Your task to perform on an android device: turn on bluetooth scan Image 0: 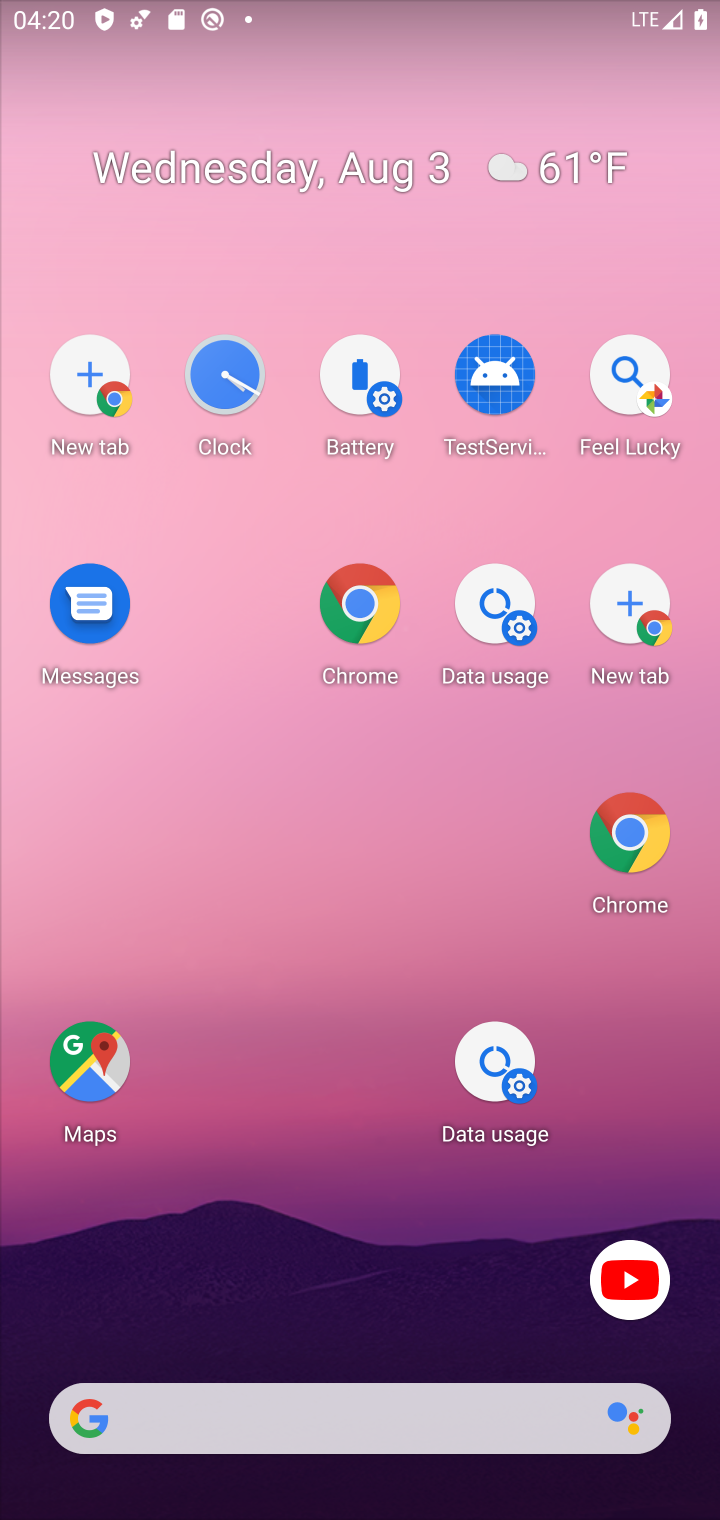
Step 0: drag from (399, 1361) to (299, 210)
Your task to perform on an android device: turn on bluetooth scan Image 1: 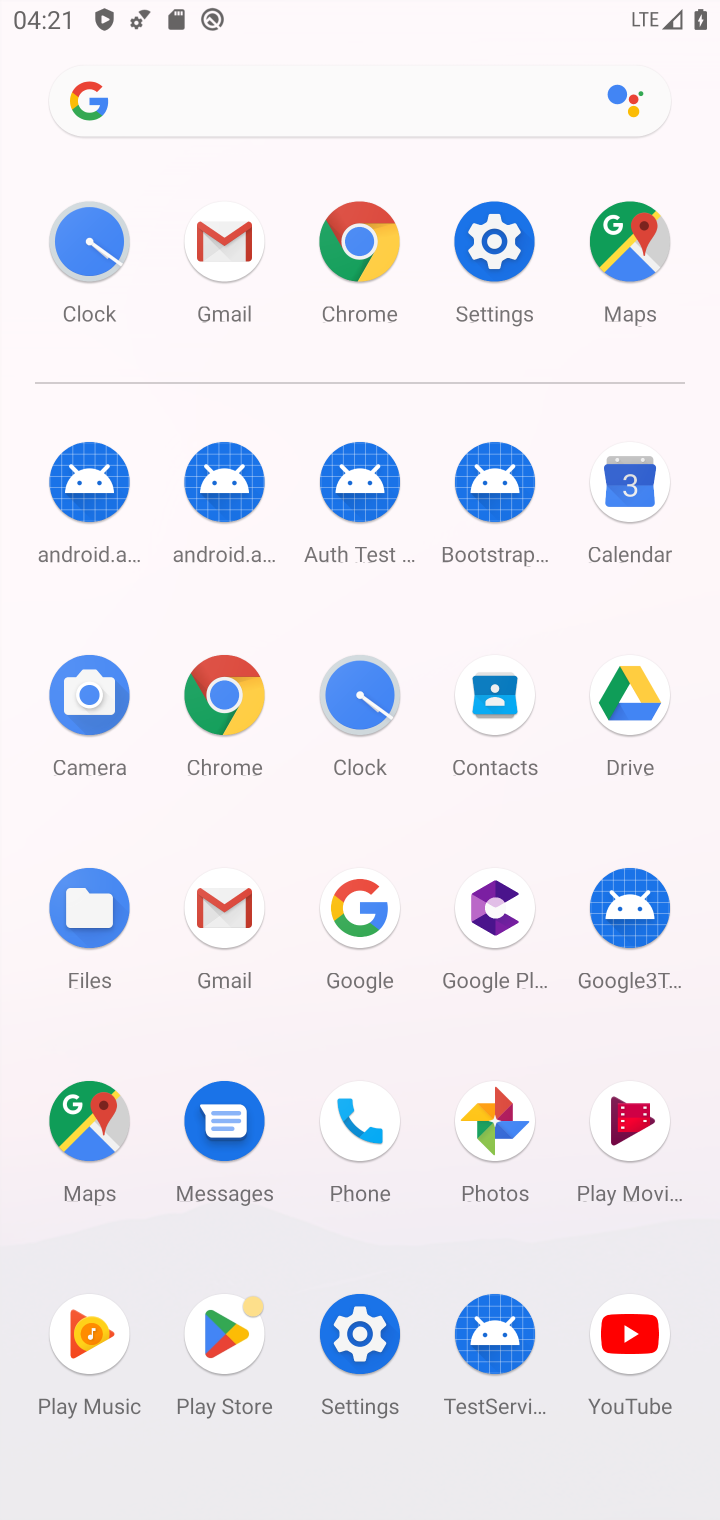
Step 1: click (490, 254)
Your task to perform on an android device: turn on bluetooth scan Image 2: 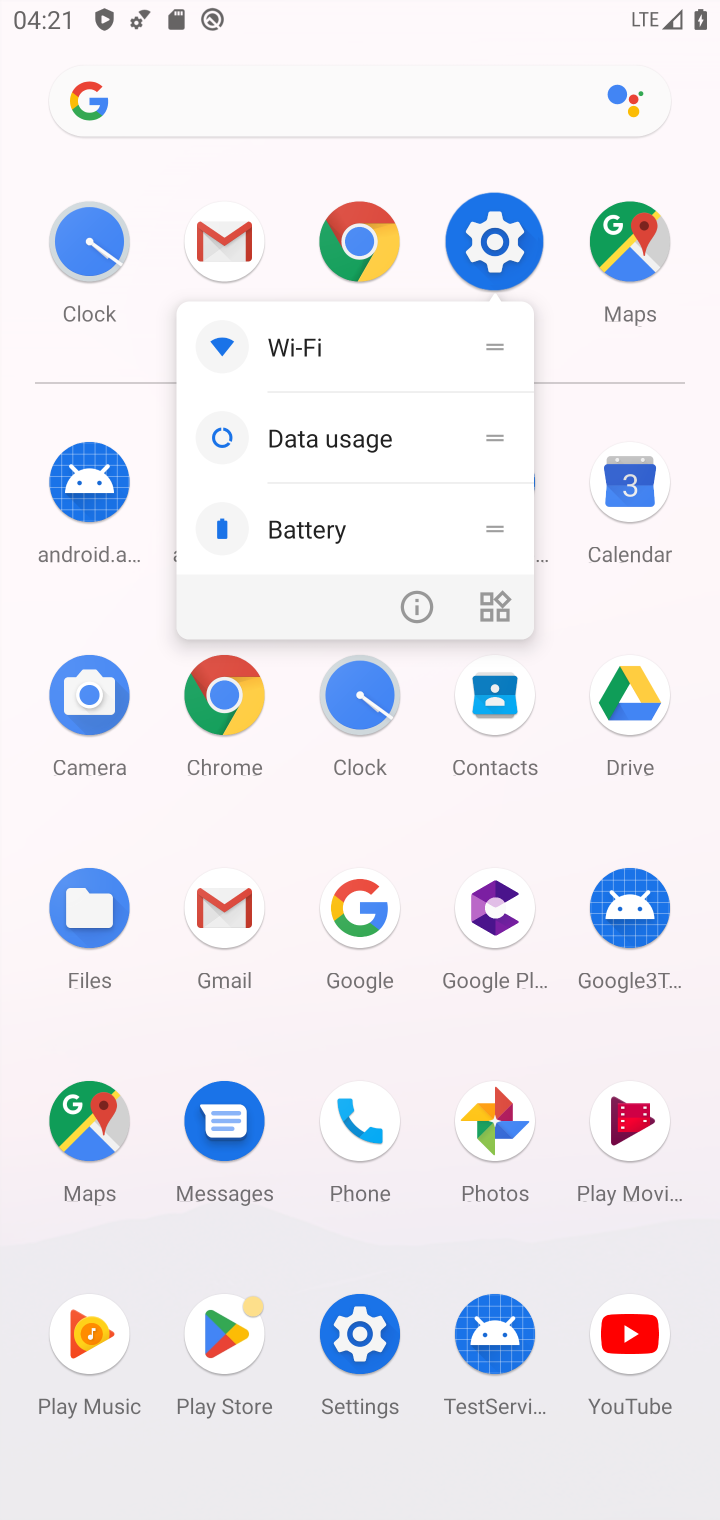
Step 2: click (523, 245)
Your task to perform on an android device: turn on bluetooth scan Image 3: 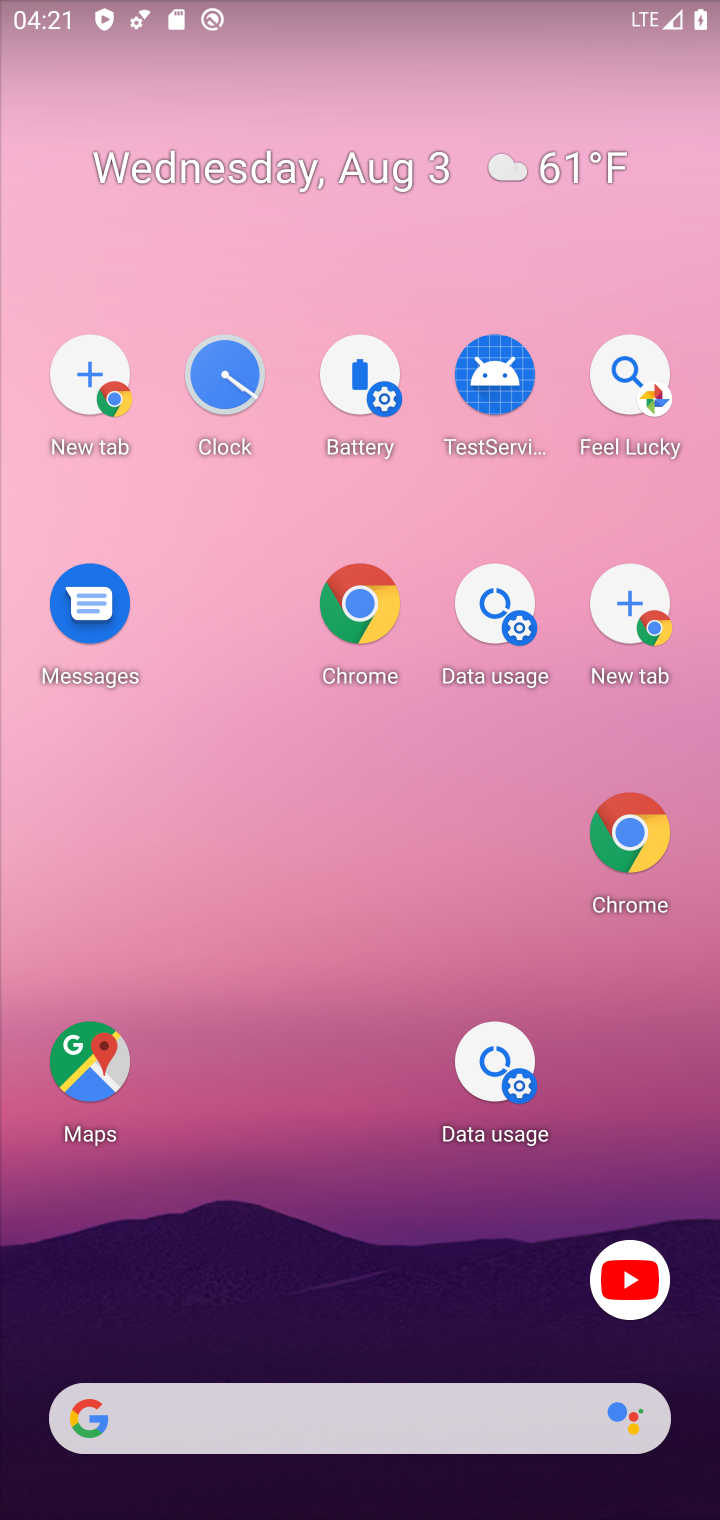
Step 3: click (244, 209)
Your task to perform on an android device: turn on bluetooth scan Image 4: 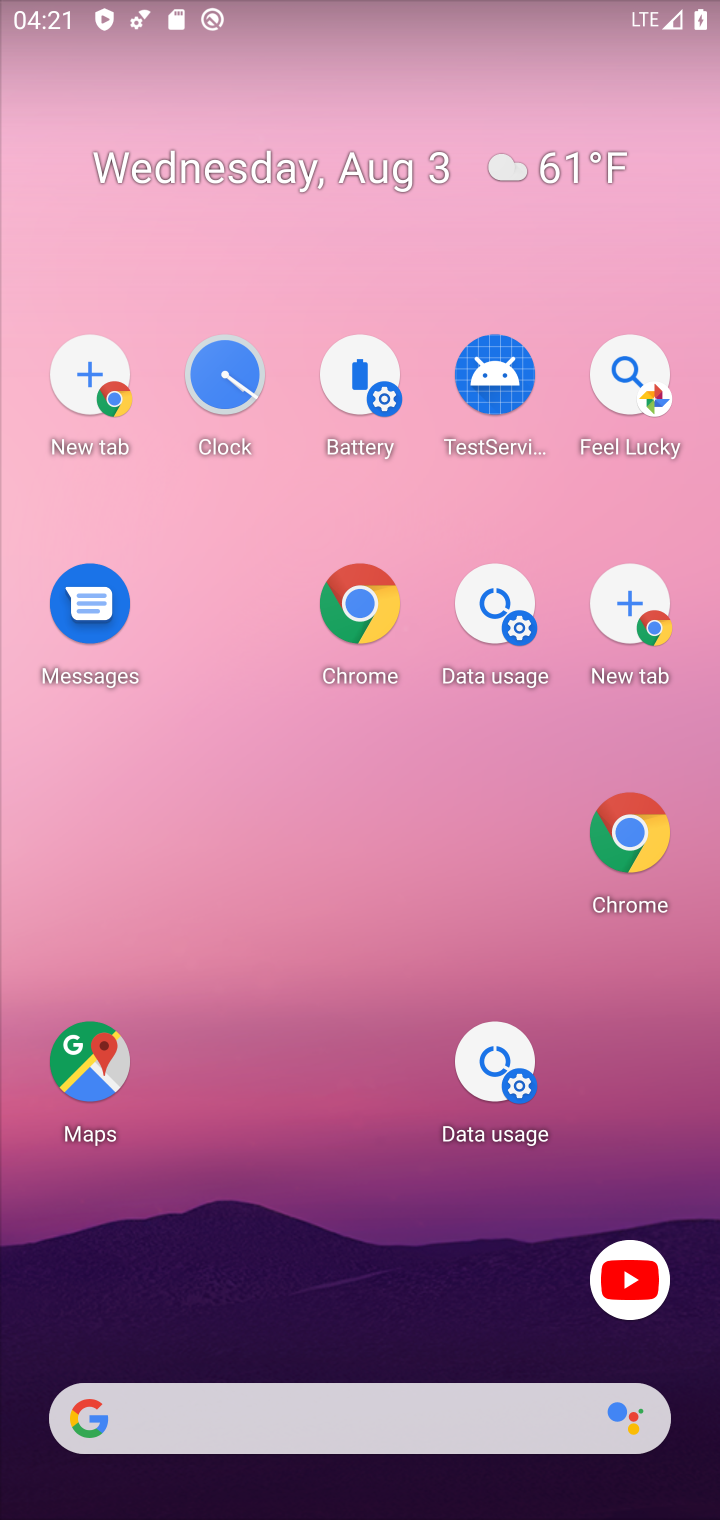
Step 4: drag from (346, 1253) to (462, 37)
Your task to perform on an android device: turn on bluetooth scan Image 5: 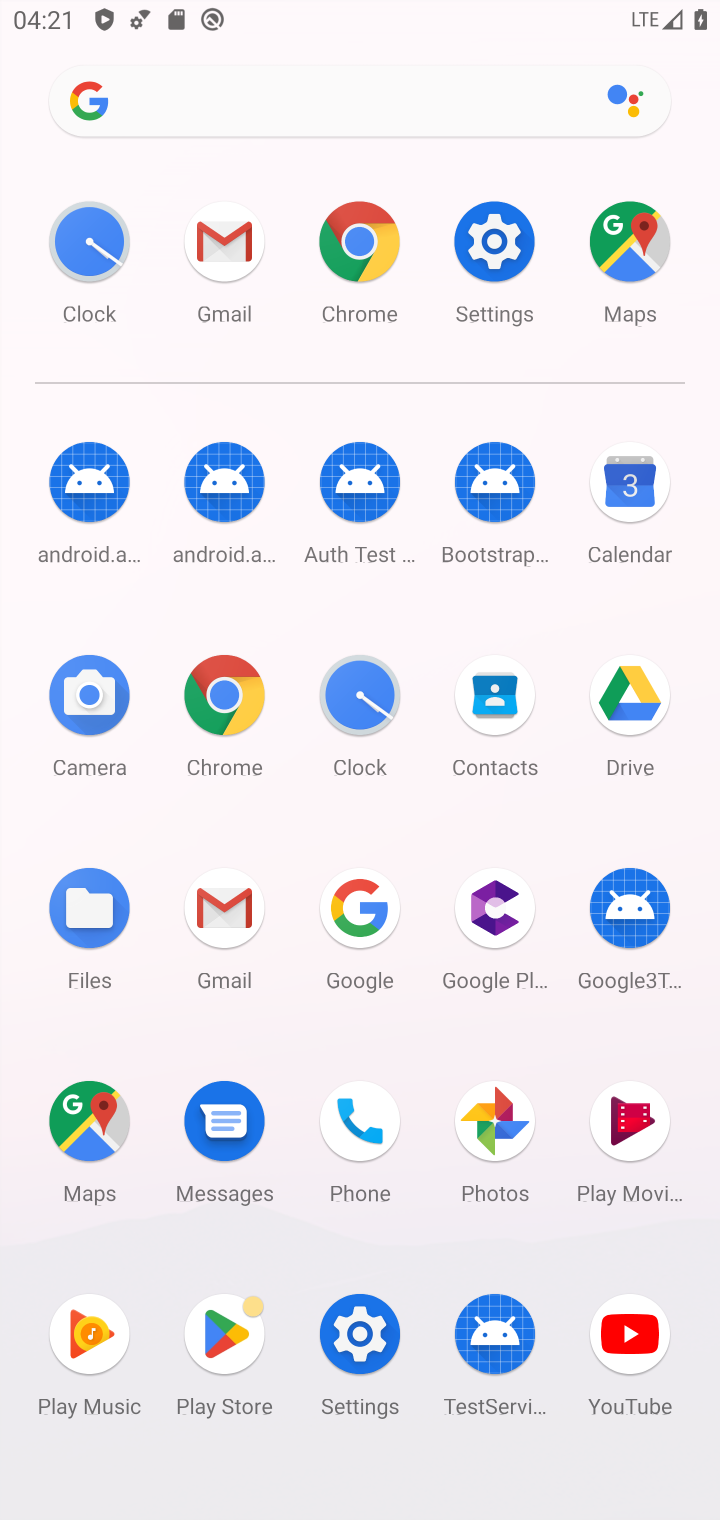
Step 5: click (336, 1330)
Your task to perform on an android device: turn on bluetooth scan Image 6: 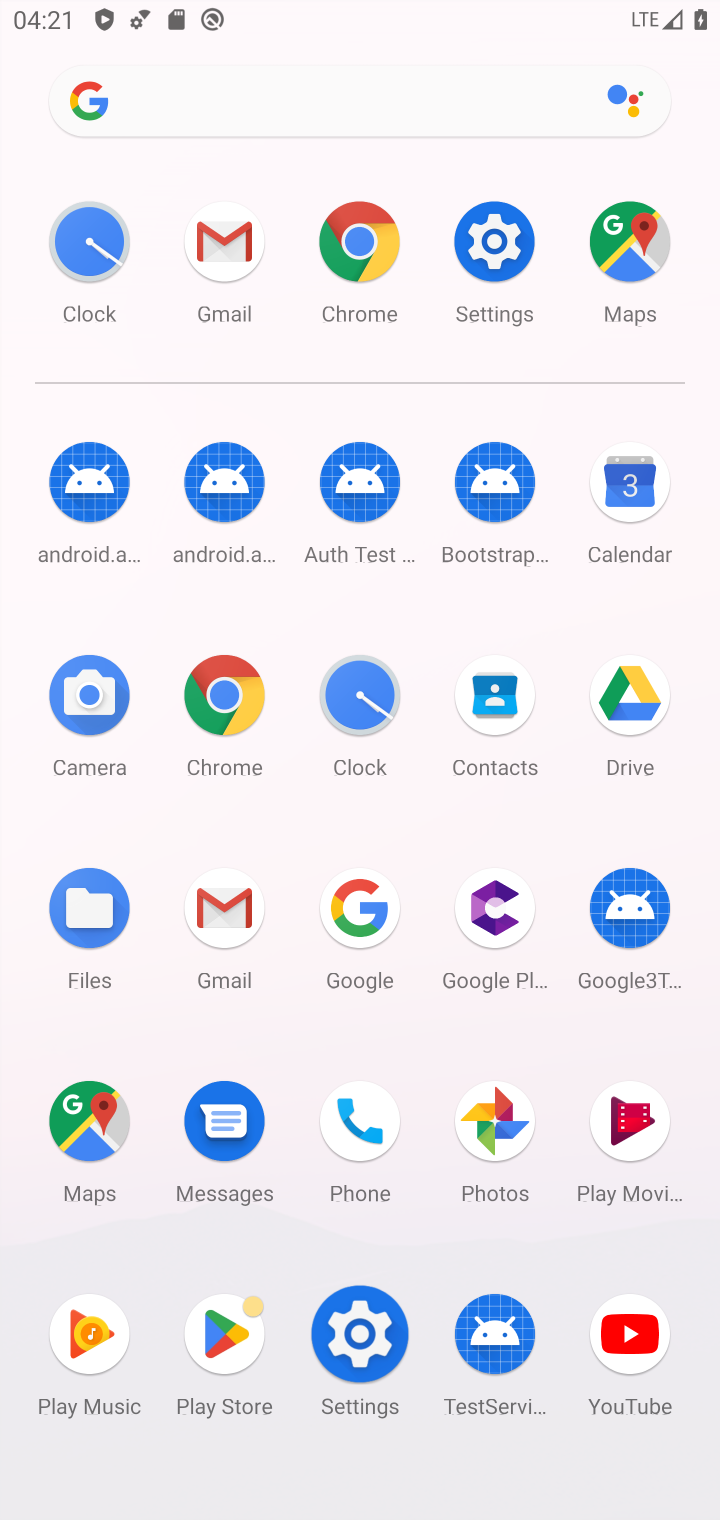
Step 6: click (364, 1320)
Your task to perform on an android device: turn on bluetooth scan Image 7: 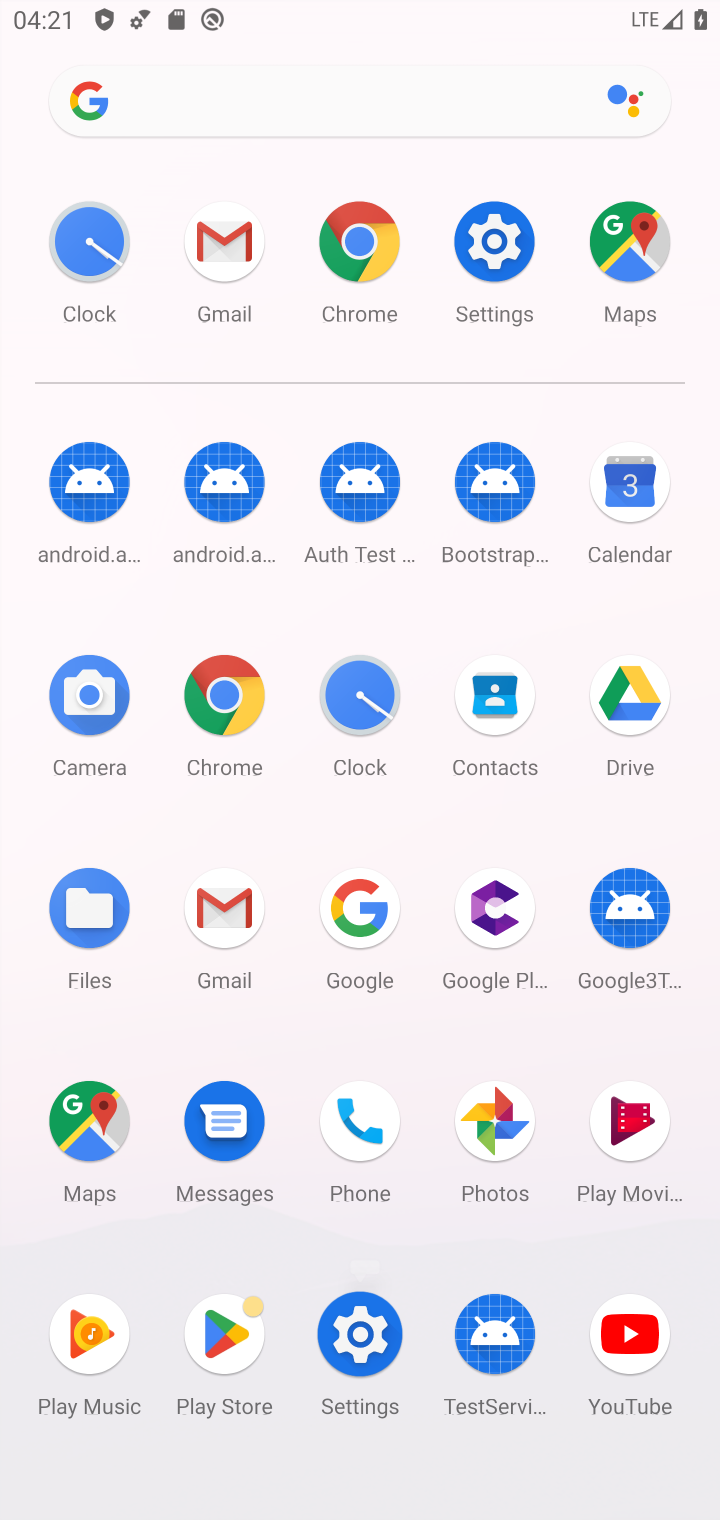
Step 7: click (373, 1319)
Your task to perform on an android device: turn on bluetooth scan Image 8: 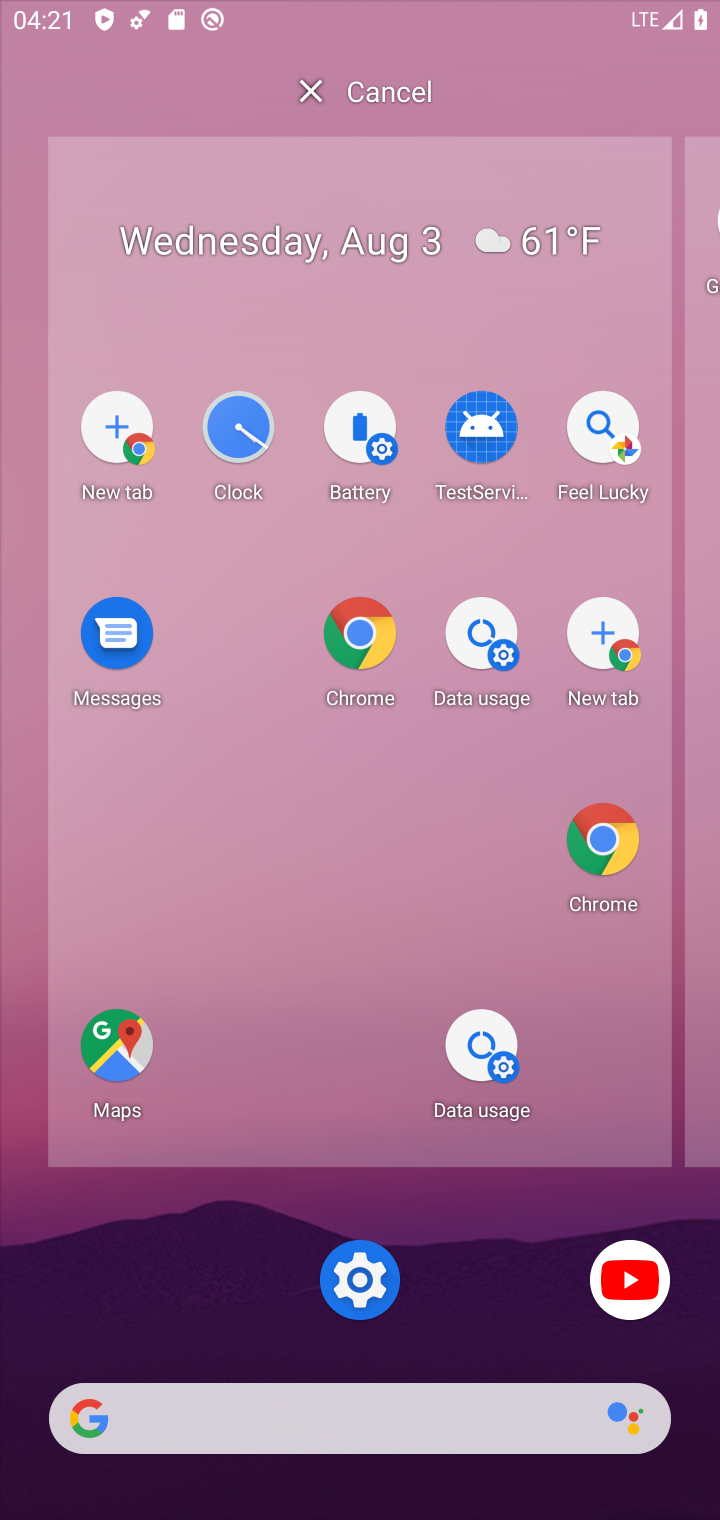
Step 8: click (306, 1369)
Your task to perform on an android device: turn on bluetooth scan Image 9: 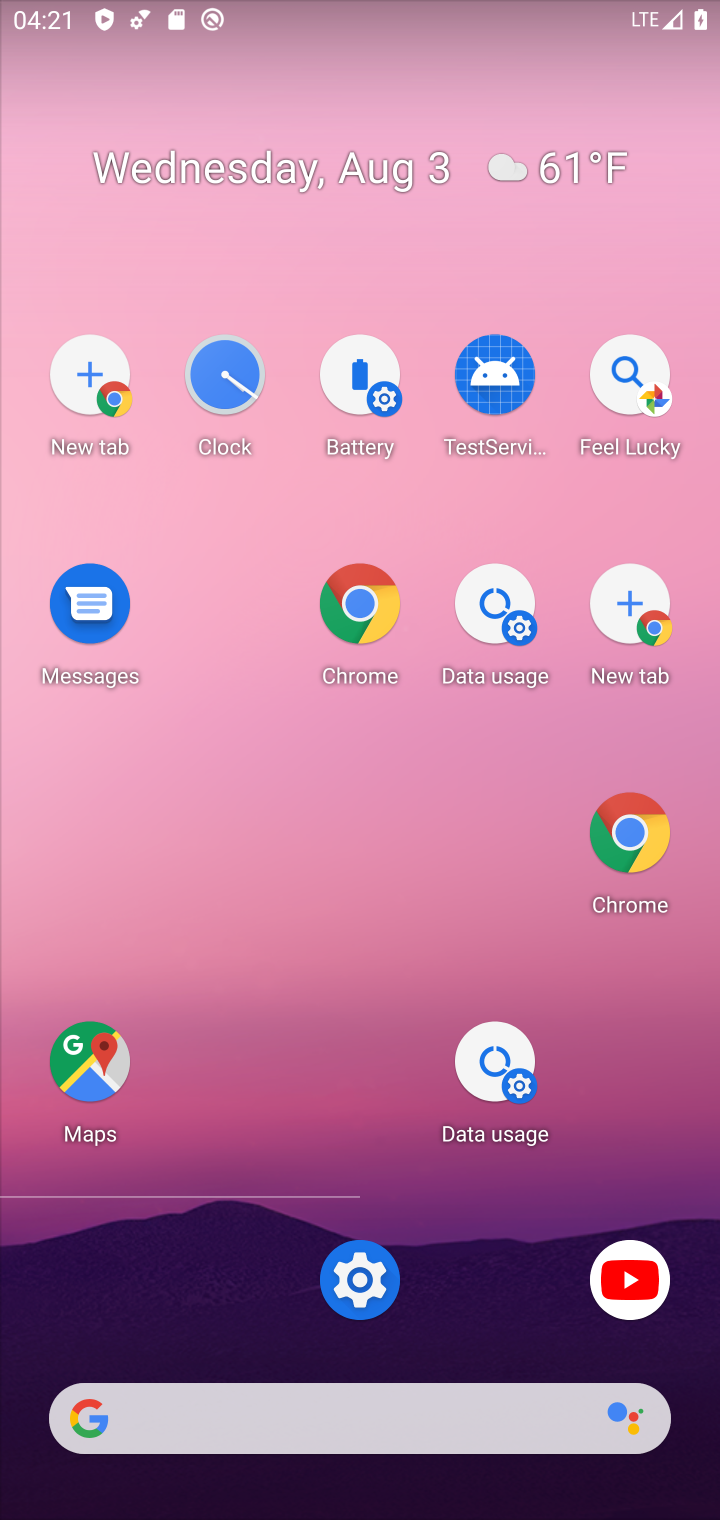
Step 9: click (355, 1283)
Your task to perform on an android device: turn on bluetooth scan Image 10: 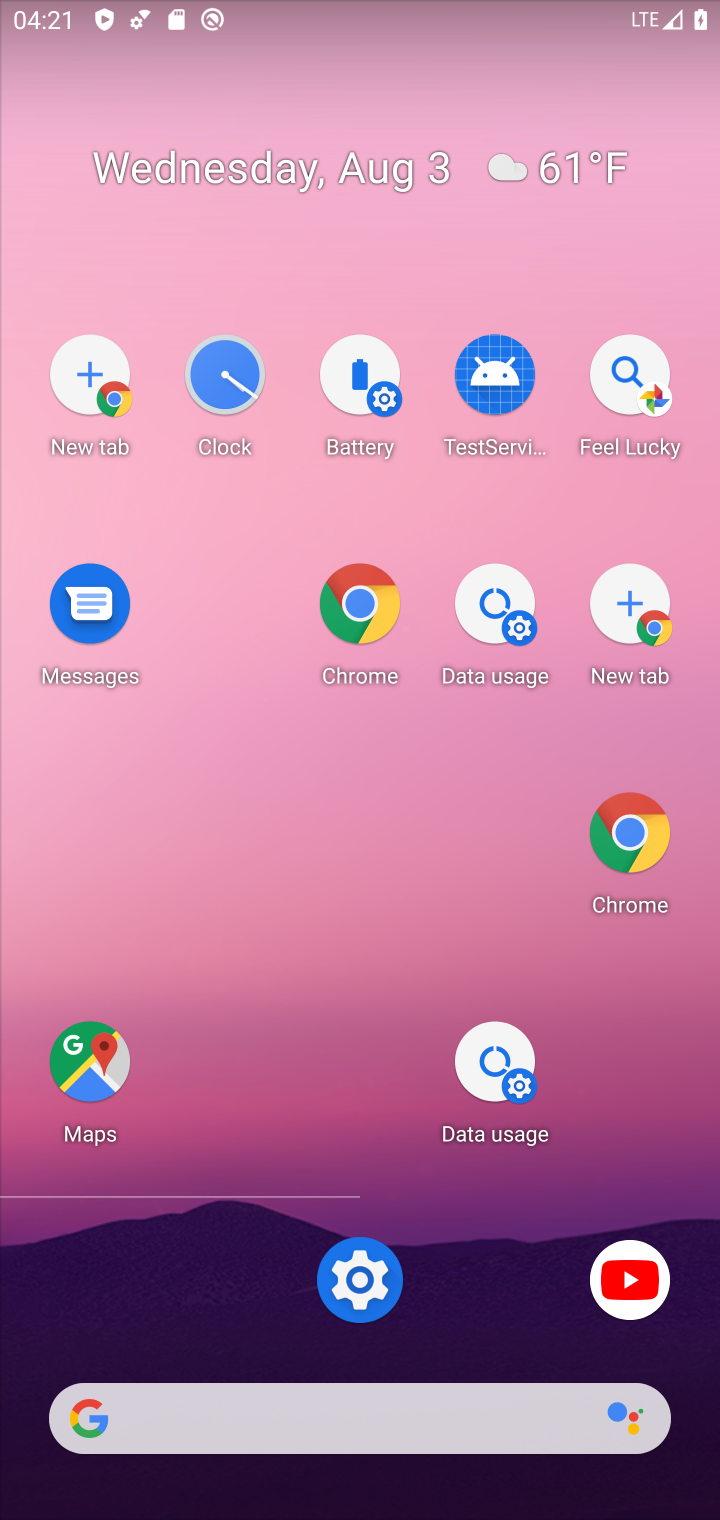
Step 10: drag from (337, 1305) to (372, 1215)
Your task to perform on an android device: turn on bluetooth scan Image 11: 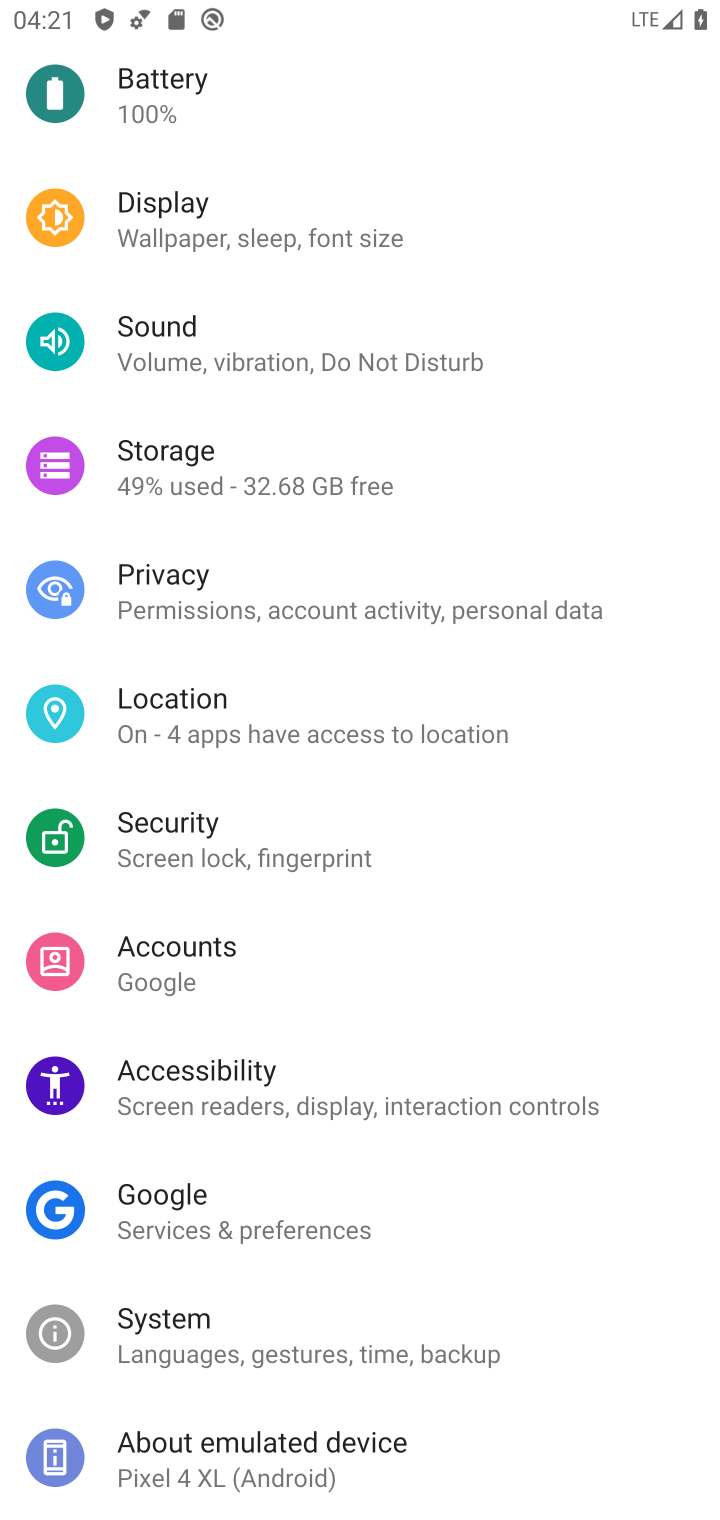
Step 11: drag from (428, 1351) to (316, 305)
Your task to perform on an android device: turn on bluetooth scan Image 12: 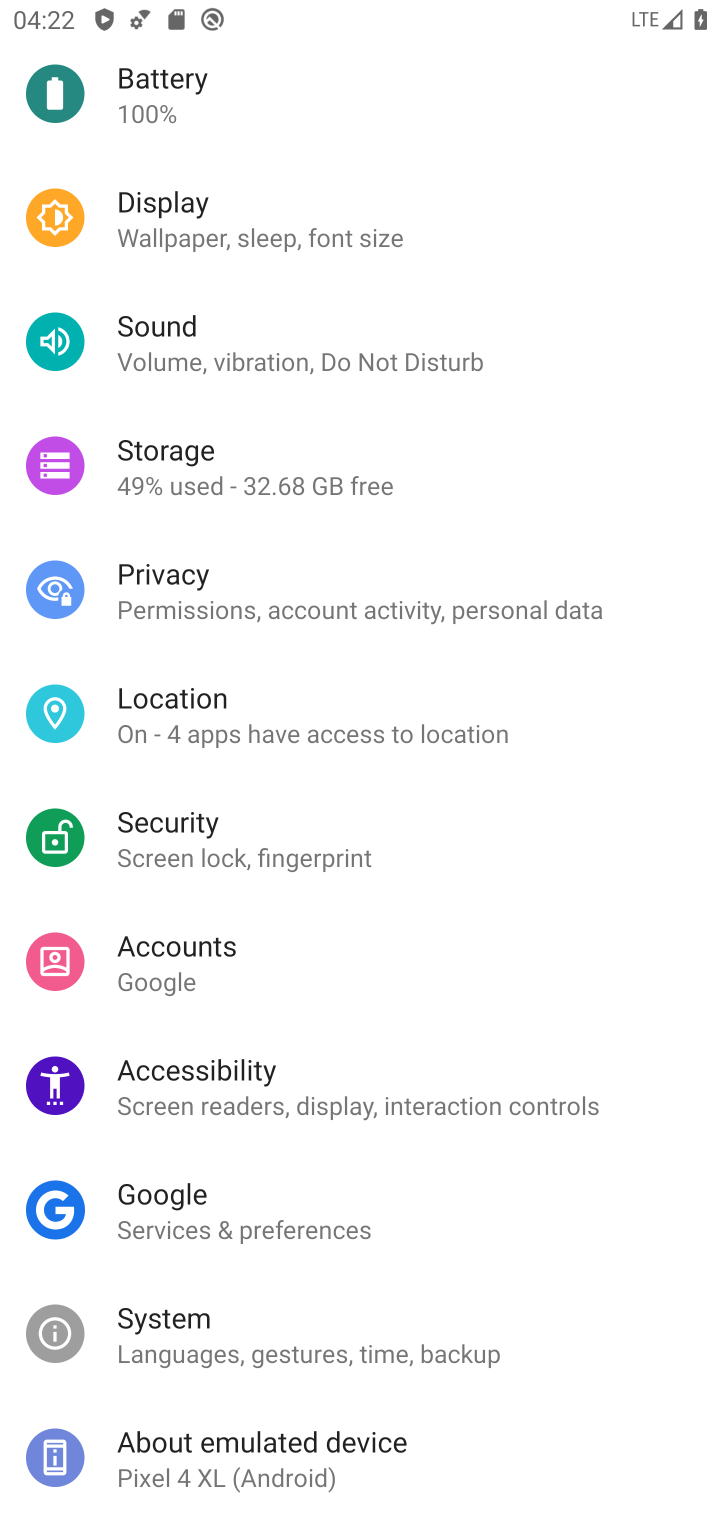
Step 12: drag from (168, 218) to (179, 1168)
Your task to perform on an android device: turn on bluetooth scan Image 13: 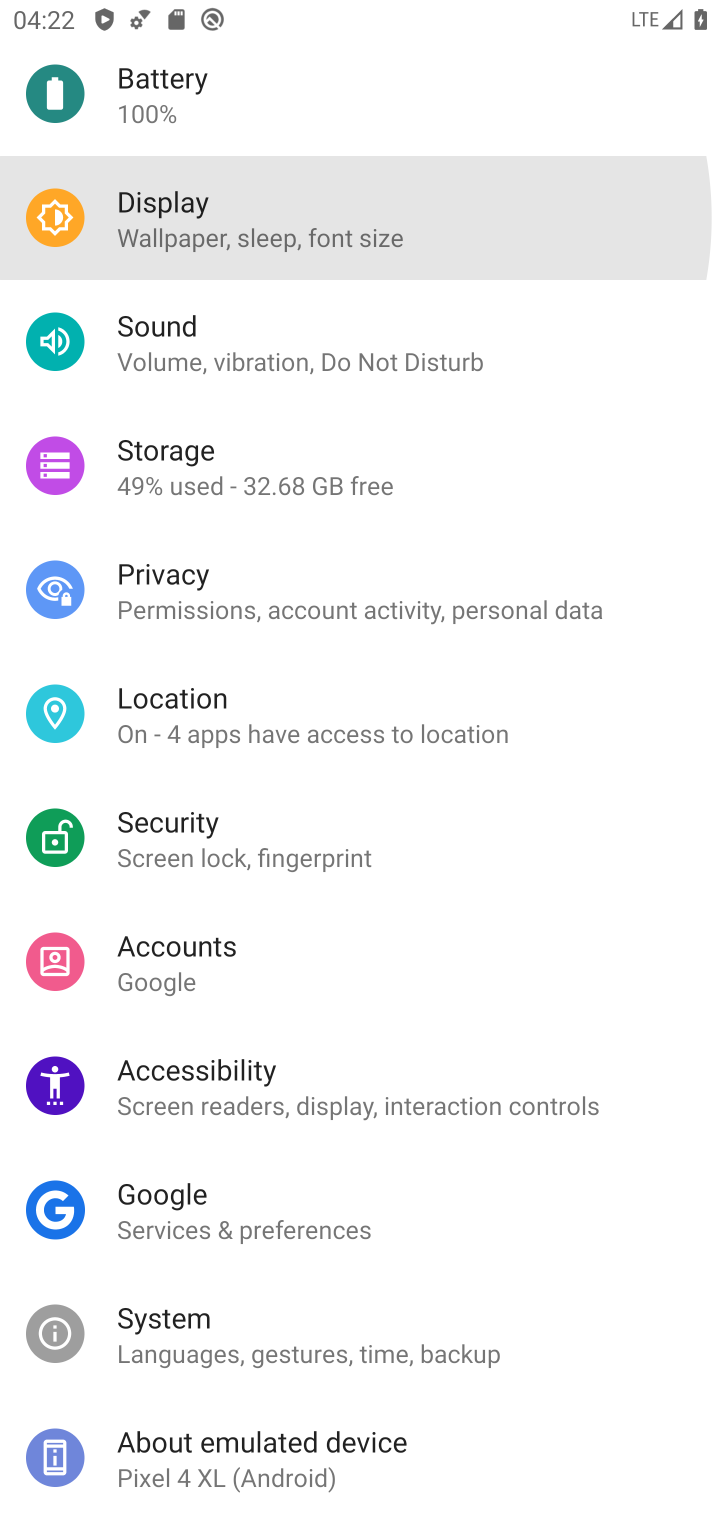
Step 13: drag from (335, 1194) to (392, 1322)
Your task to perform on an android device: turn on bluetooth scan Image 14: 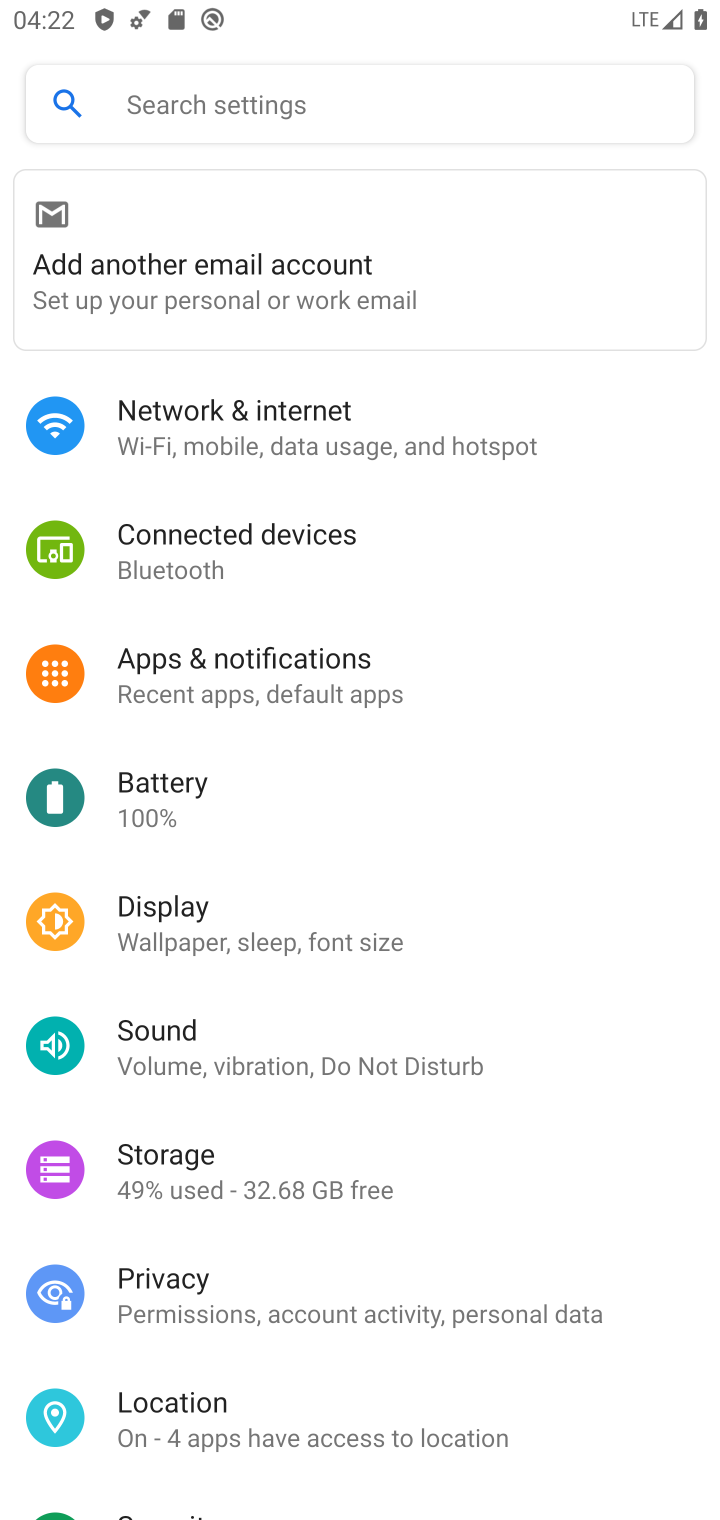
Step 14: click (208, 1408)
Your task to perform on an android device: turn on bluetooth scan Image 15: 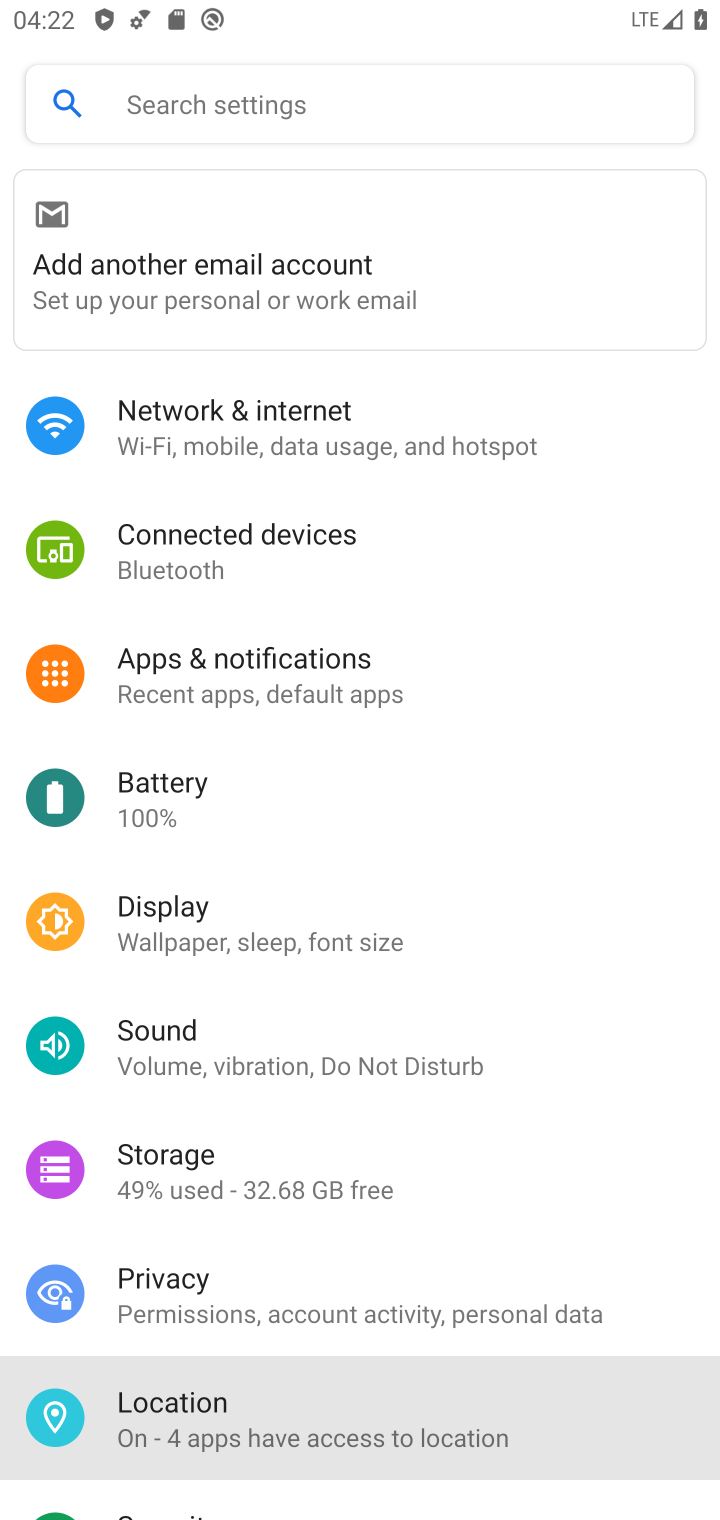
Step 15: click (211, 1409)
Your task to perform on an android device: turn on bluetooth scan Image 16: 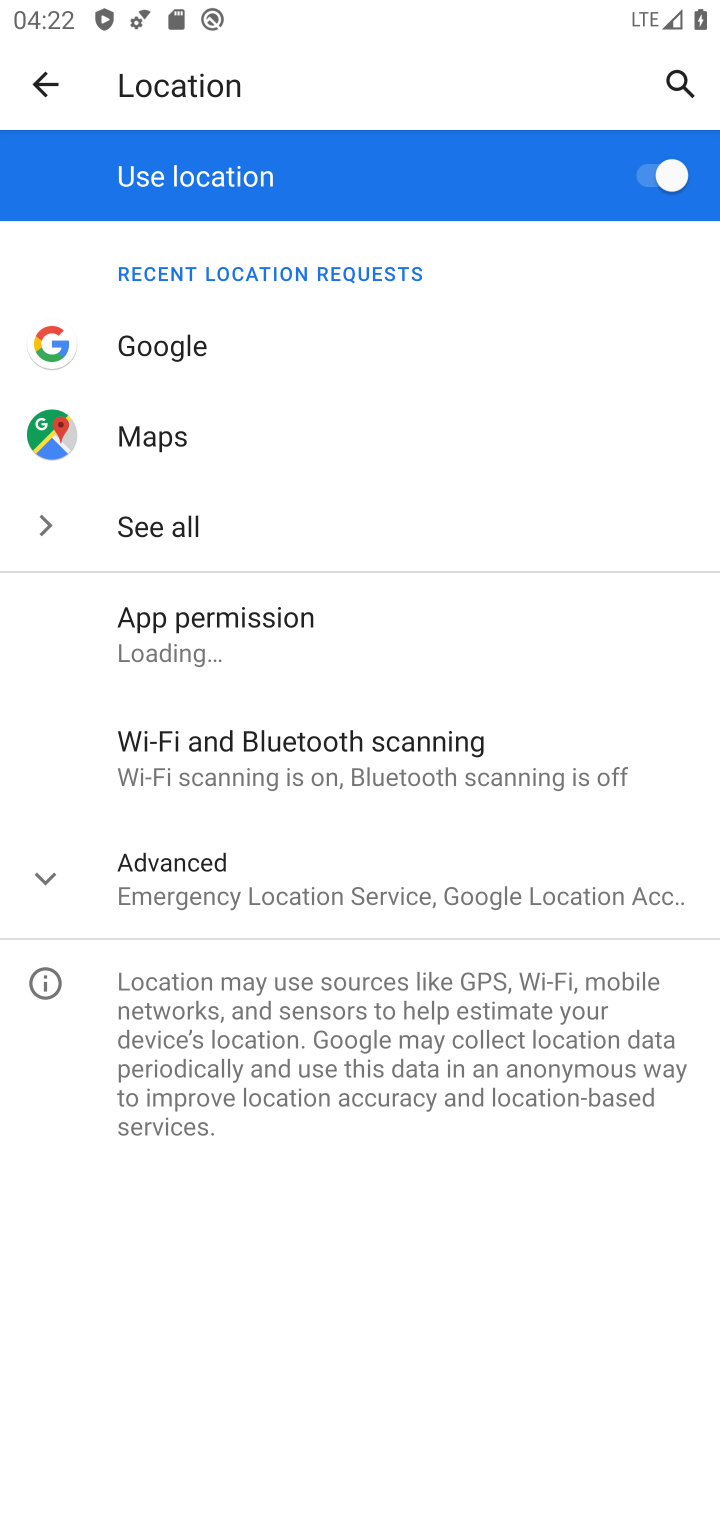
Step 16: click (198, 572)
Your task to perform on an android device: turn on bluetooth scan Image 17: 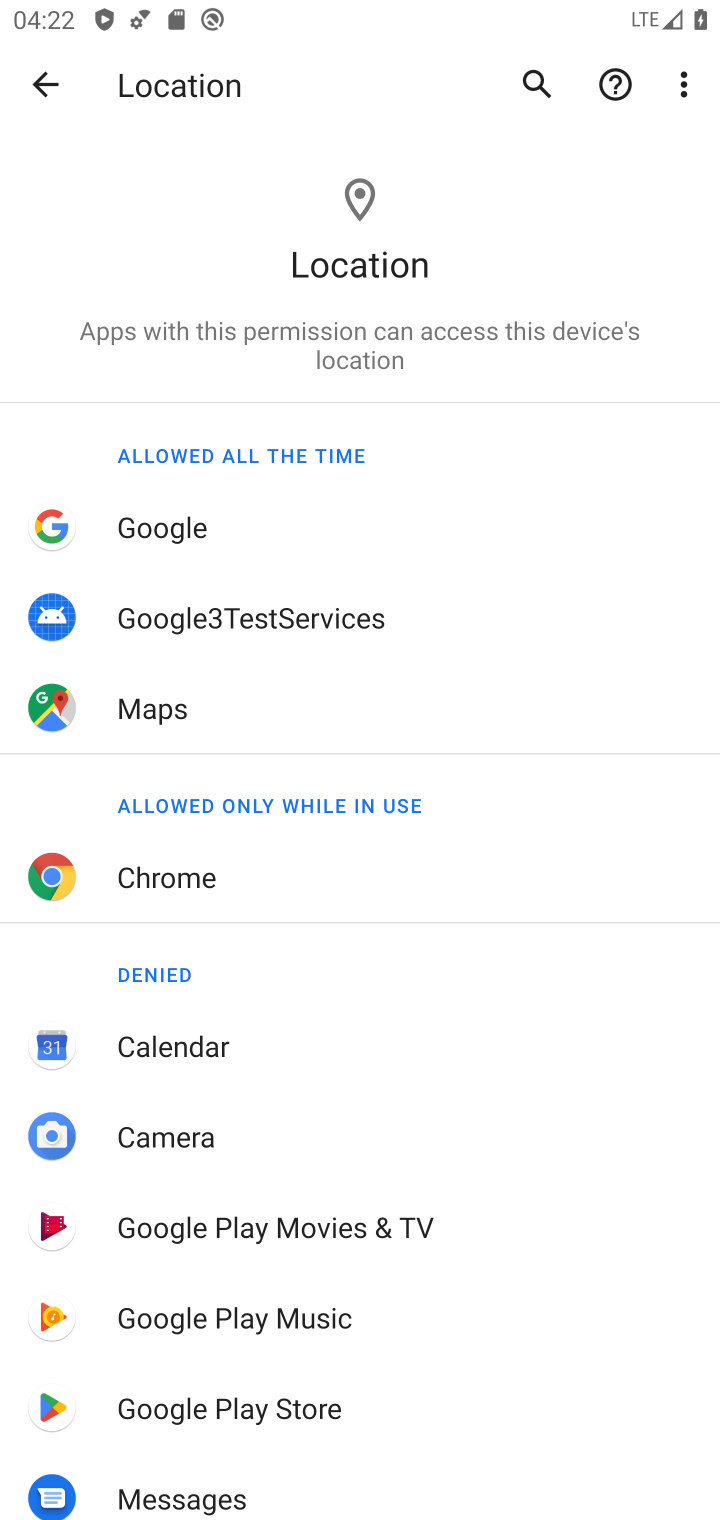
Step 17: drag from (270, 1289) to (230, 487)
Your task to perform on an android device: turn on bluetooth scan Image 18: 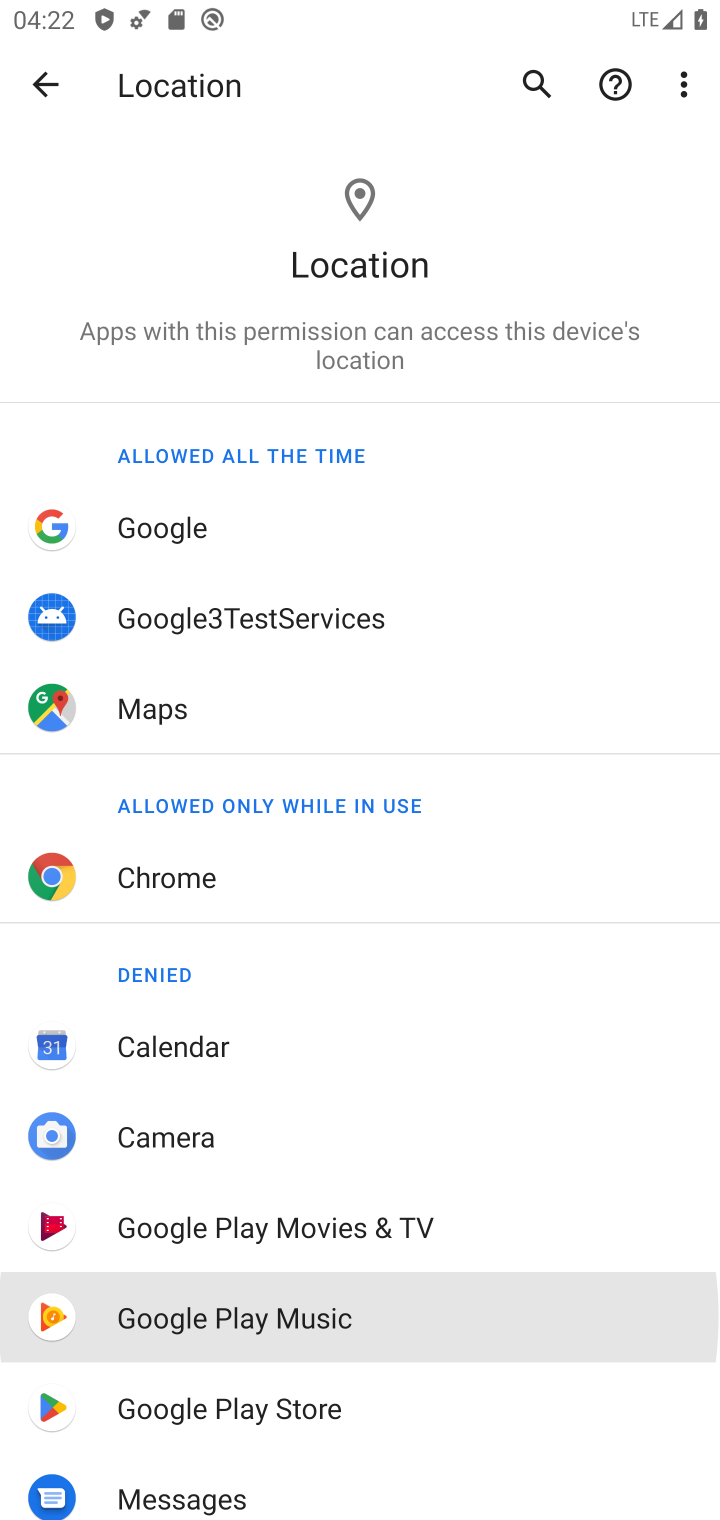
Step 18: drag from (220, 1236) to (220, 628)
Your task to perform on an android device: turn on bluetooth scan Image 19: 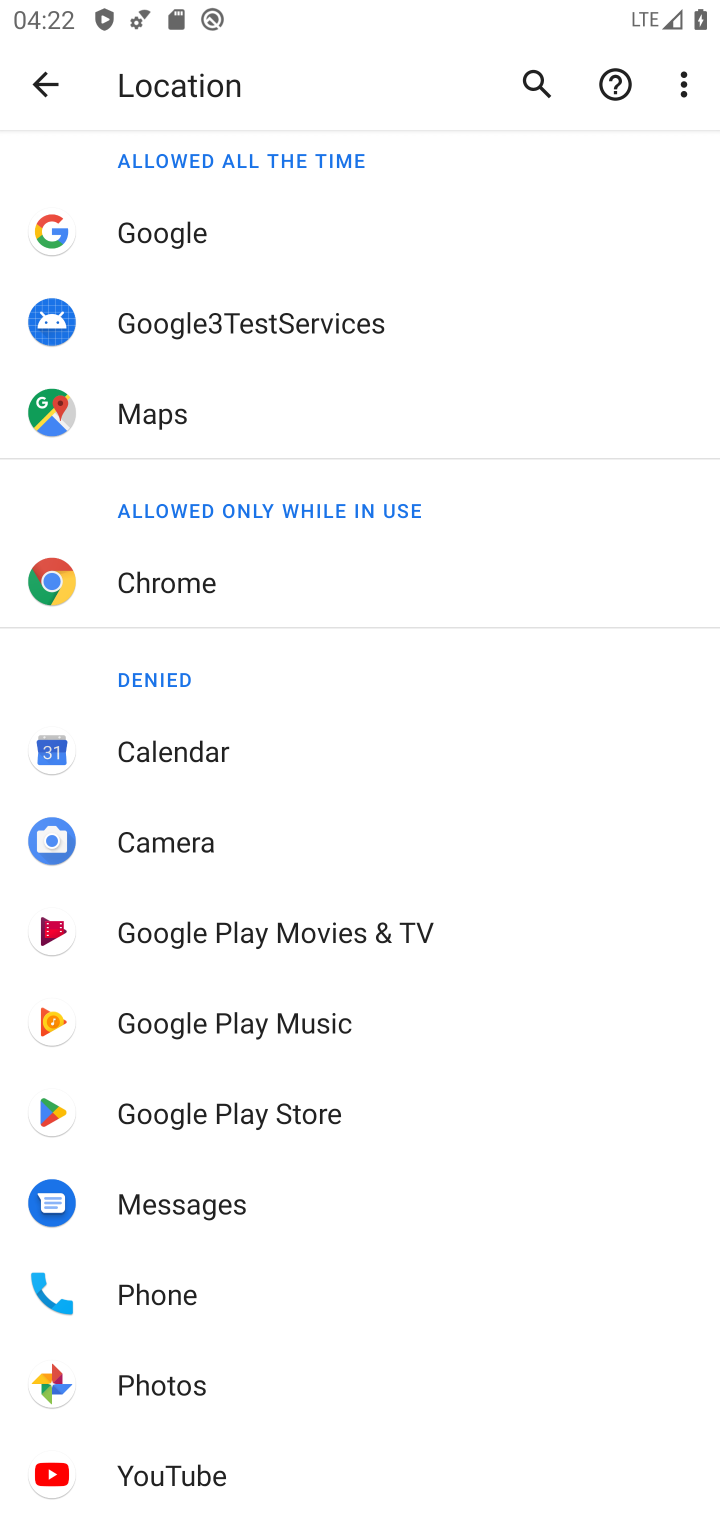
Step 19: click (48, 82)
Your task to perform on an android device: turn on bluetooth scan Image 20: 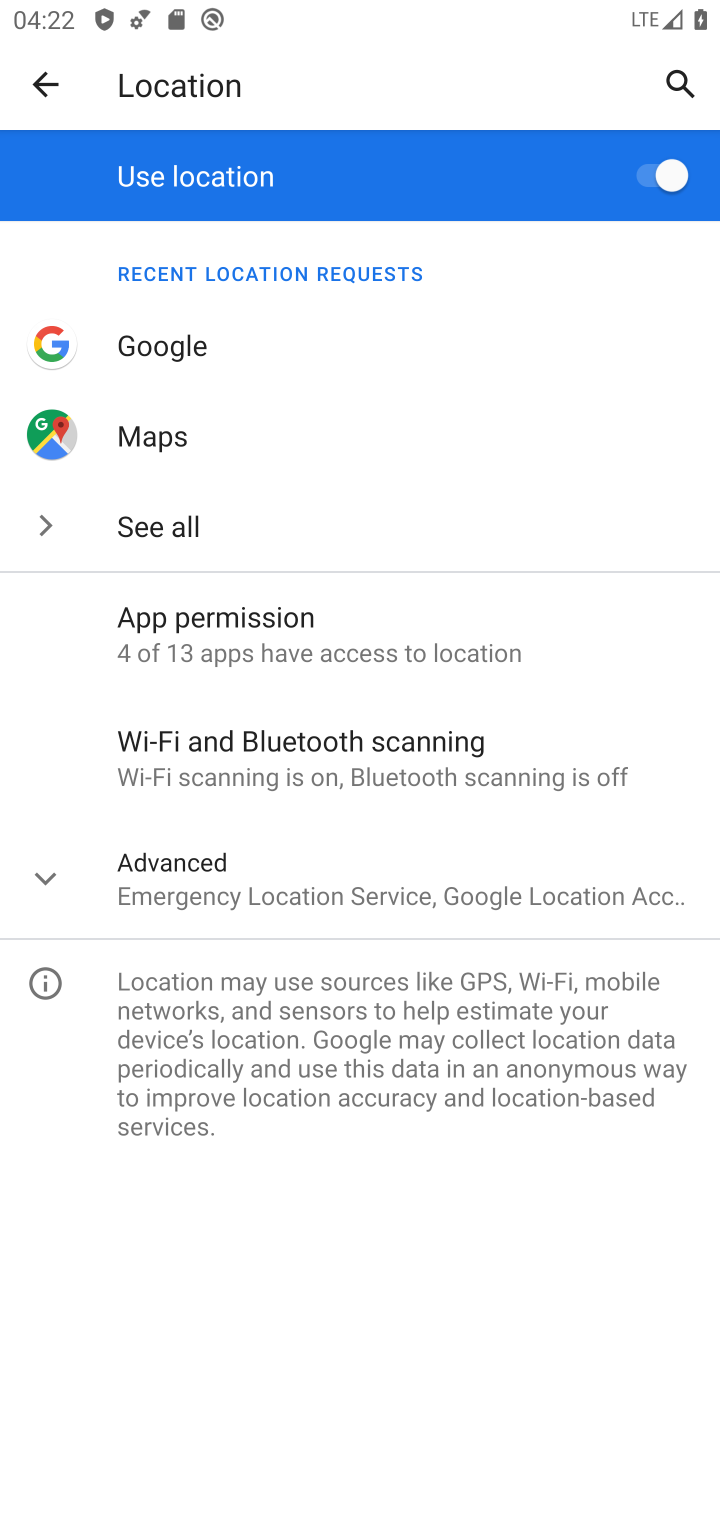
Step 20: click (292, 737)
Your task to perform on an android device: turn on bluetooth scan Image 21: 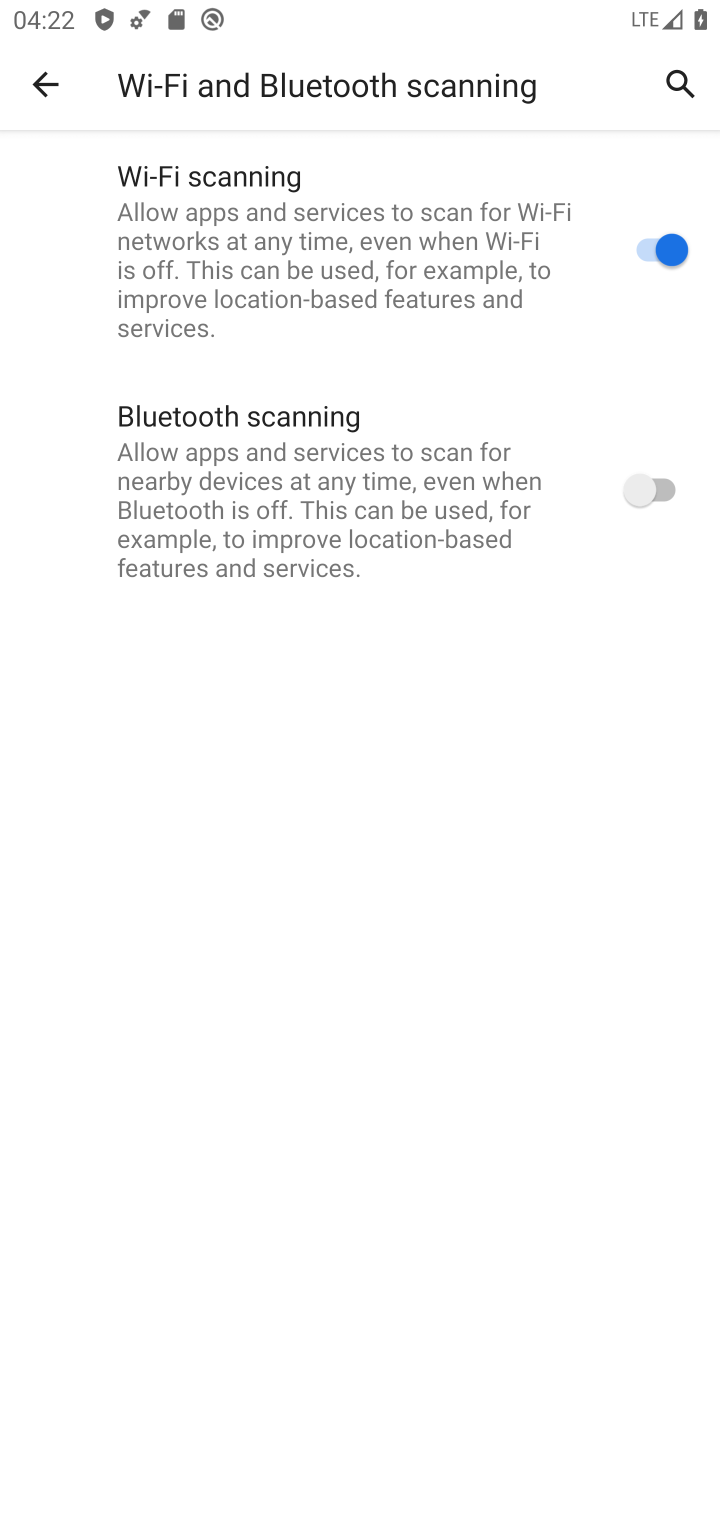
Step 21: click (645, 478)
Your task to perform on an android device: turn on bluetooth scan Image 22: 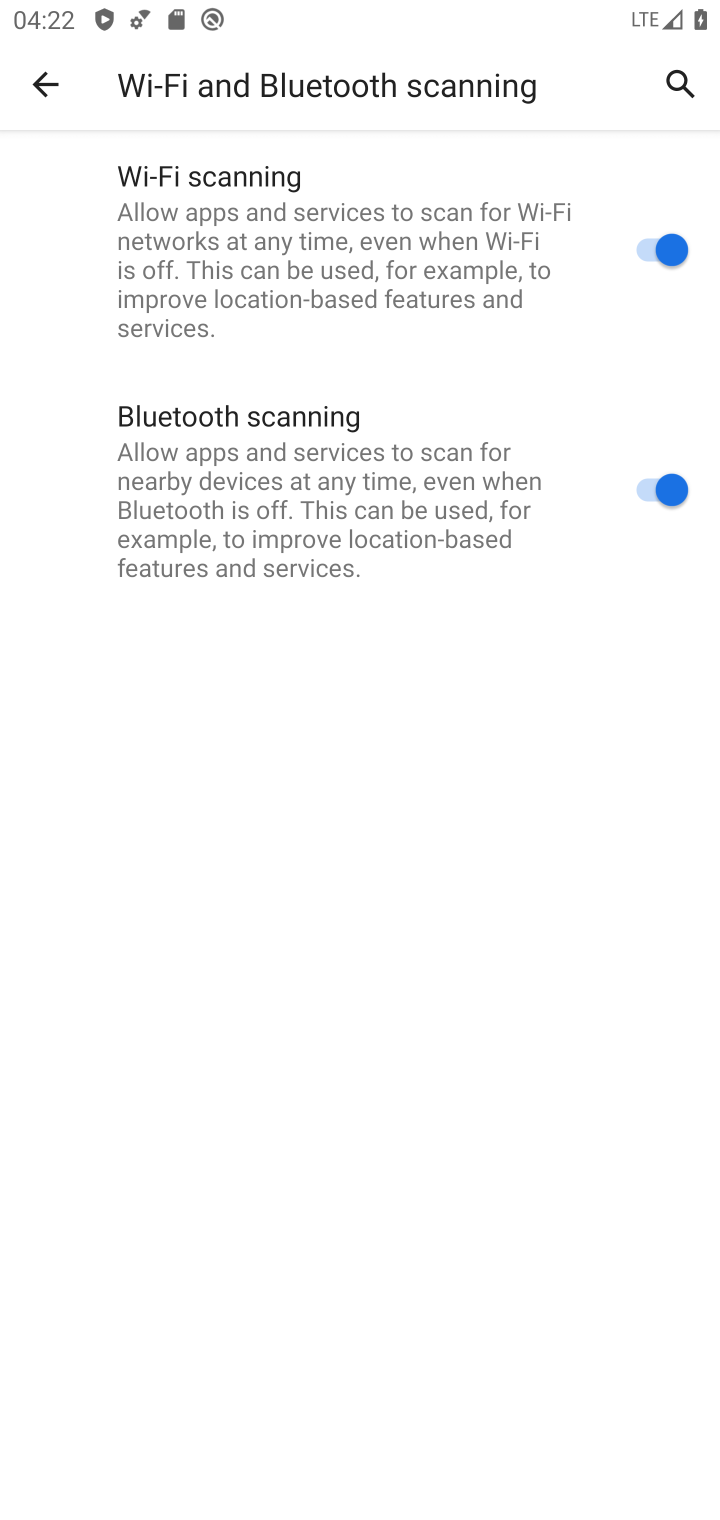
Step 22: task complete